Your task to perform on an android device: check storage Image 0: 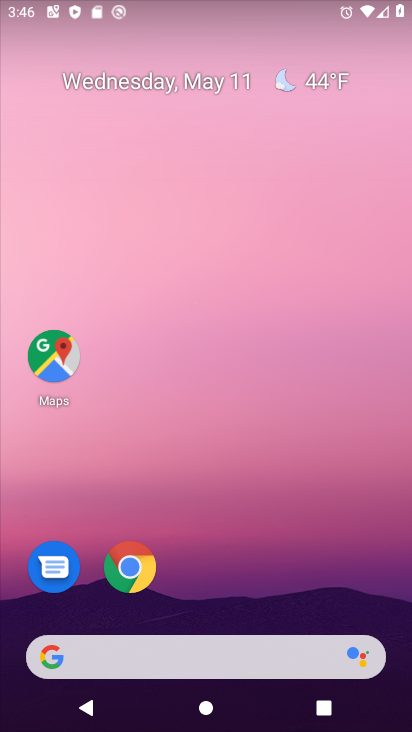
Step 0: drag from (214, 528) to (267, 0)
Your task to perform on an android device: check storage Image 1: 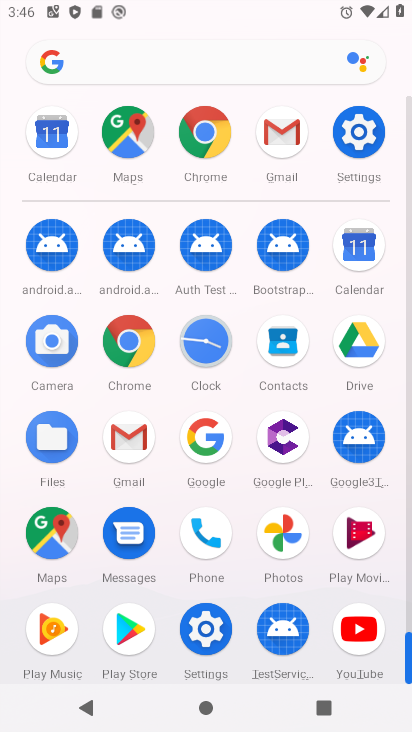
Step 1: click (357, 128)
Your task to perform on an android device: check storage Image 2: 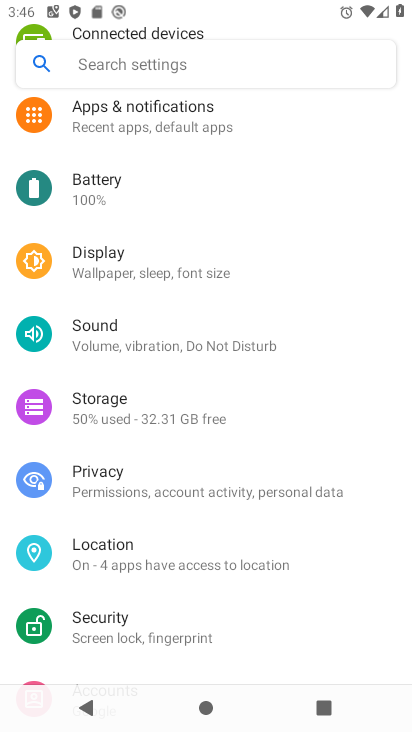
Step 2: drag from (283, 567) to (261, 143)
Your task to perform on an android device: check storage Image 3: 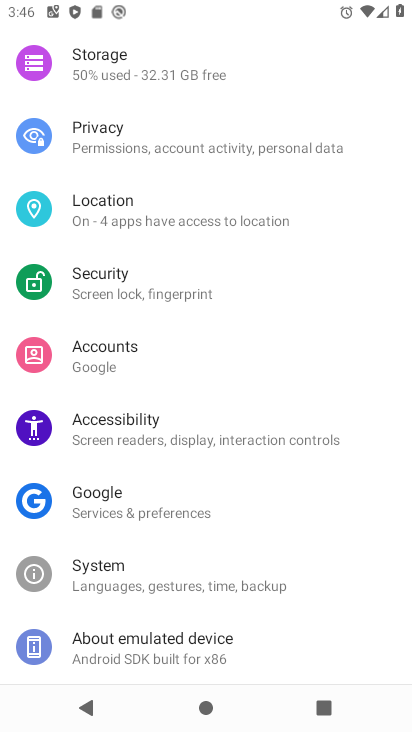
Step 3: drag from (262, 506) to (261, 111)
Your task to perform on an android device: check storage Image 4: 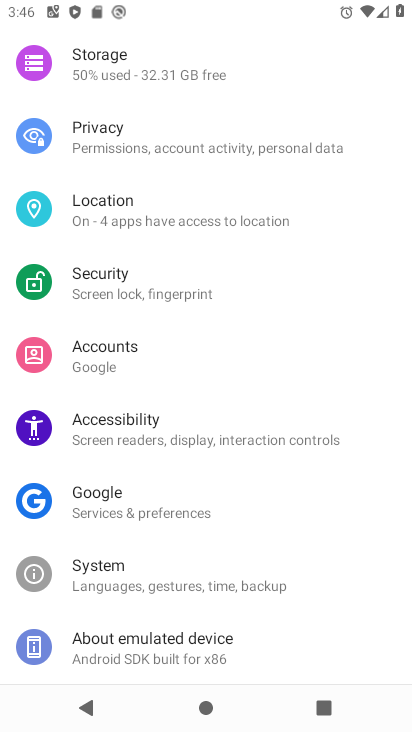
Step 4: drag from (272, 177) to (270, 603)
Your task to perform on an android device: check storage Image 5: 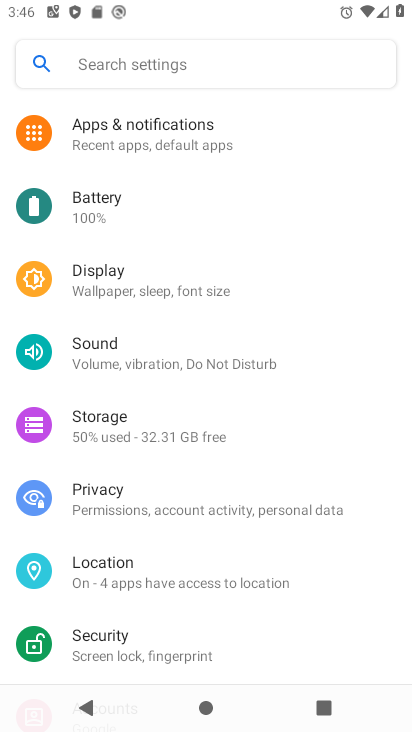
Step 5: click (142, 428)
Your task to perform on an android device: check storage Image 6: 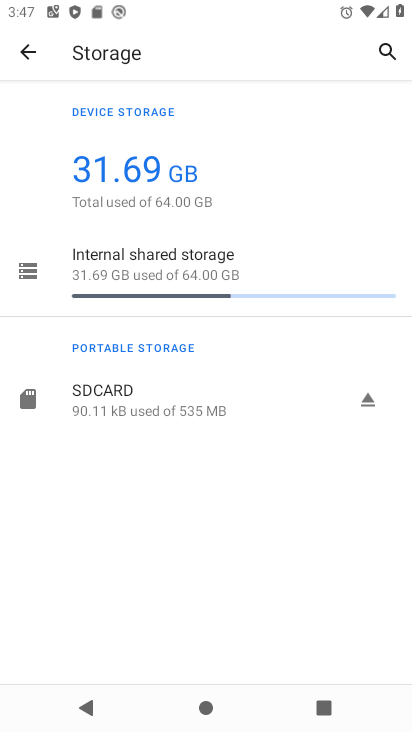
Step 6: task complete